Your task to perform on an android device: open wifi settings Image 0: 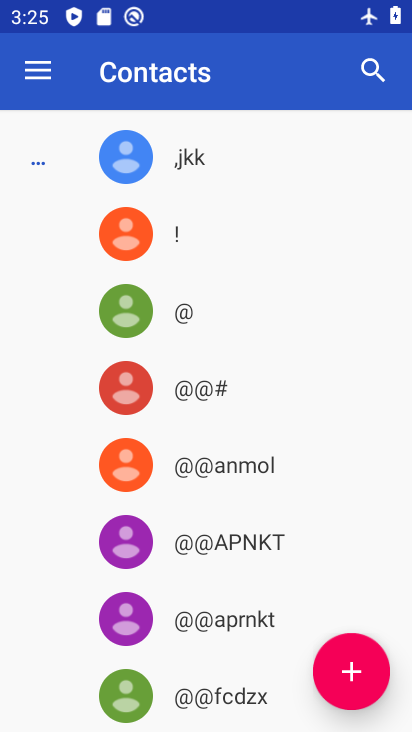
Step 0: press home button
Your task to perform on an android device: open wifi settings Image 1: 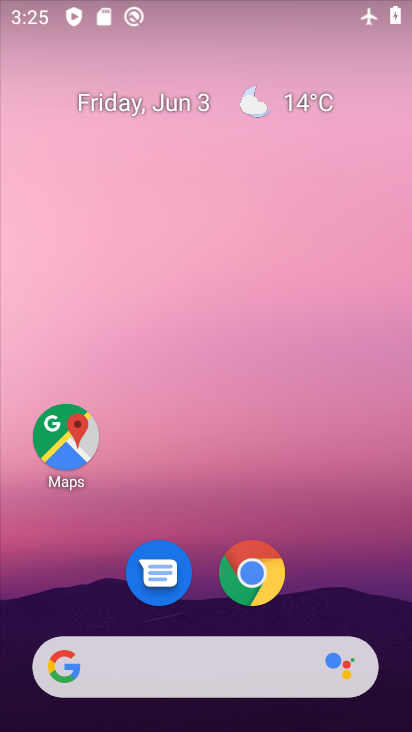
Step 1: drag from (193, 550) to (191, 35)
Your task to perform on an android device: open wifi settings Image 2: 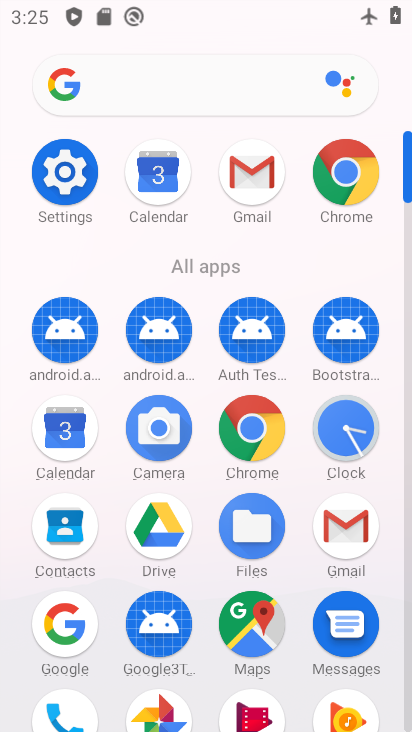
Step 2: click (64, 191)
Your task to perform on an android device: open wifi settings Image 3: 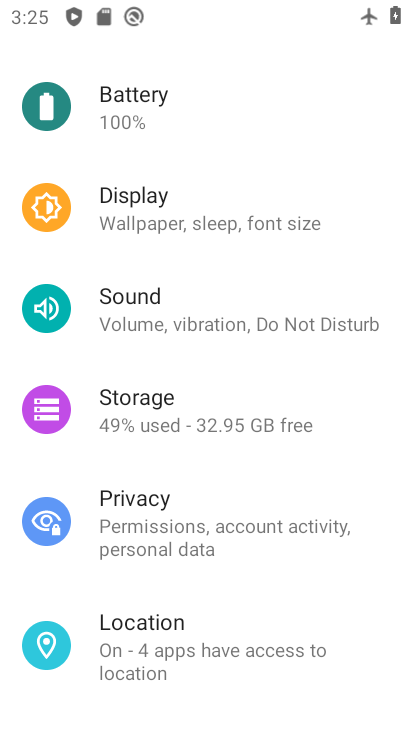
Step 3: drag from (161, 308) to (160, 731)
Your task to perform on an android device: open wifi settings Image 4: 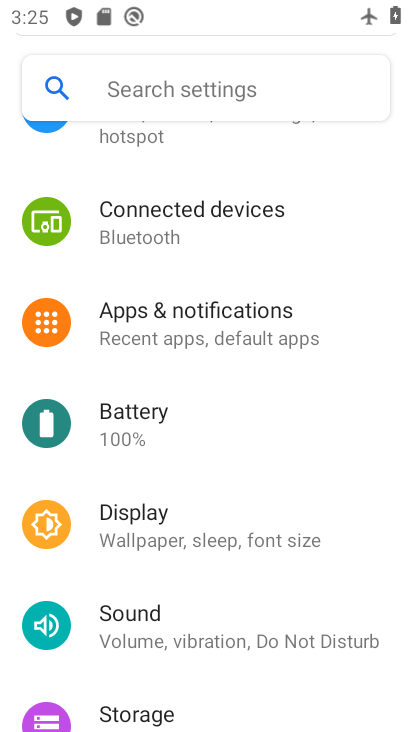
Step 4: drag from (235, 265) to (165, 697)
Your task to perform on an android device: open wifi settings Image 5: 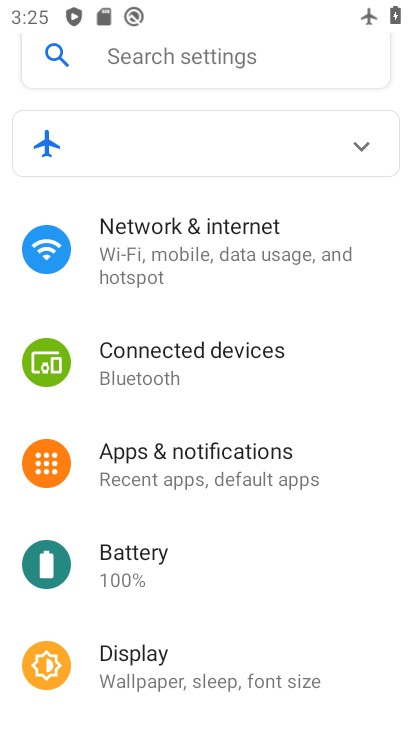
Step 5: click (264, 251)
Your task to perform on an android device: open wifi settings Image 6: 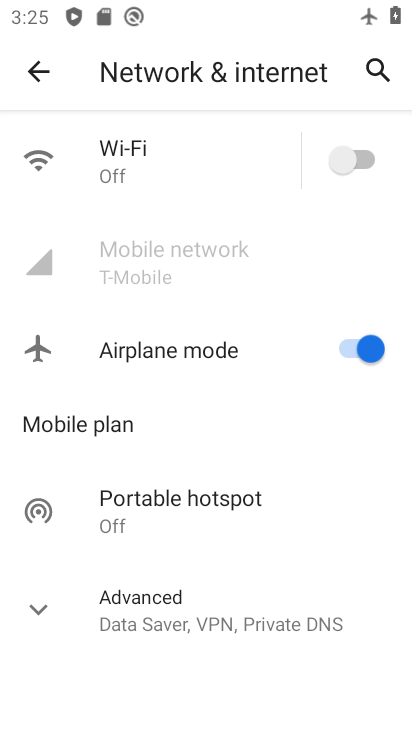
Step 6: click (244, 160)
Your task to perform on an android device: open wifi settings Image 7: 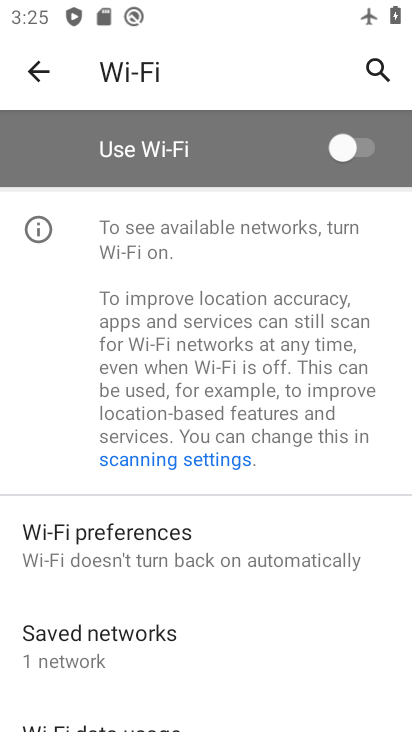
Step 7: task complete